Your task to perform on an android device: Set the phone to "Do not disturb". Image 0: 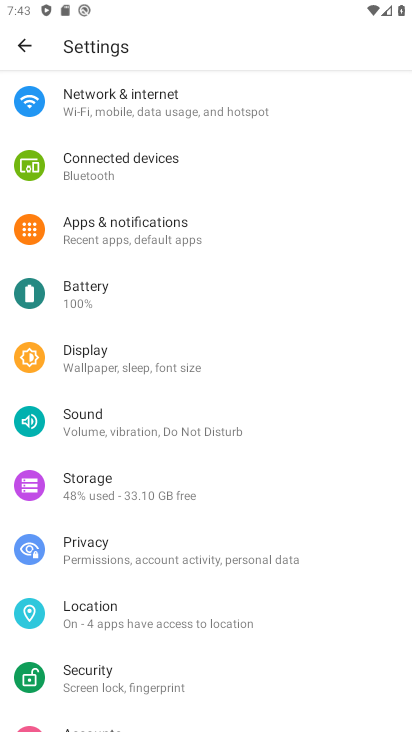
Step 0: click (78, 423)
Your task to perform on an android device: Set the phone to "Do not disturb". Image 1: 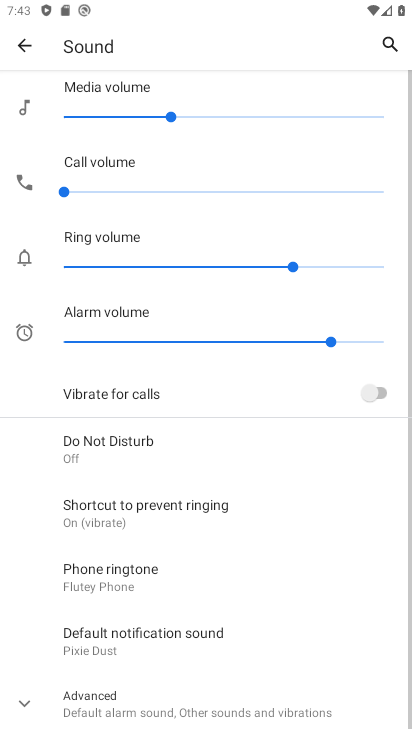
Step 1: drag from (296, 640) to (262, 428)
Your task to perform on an android device: Set the phone to "Do not disturb". Image 2: 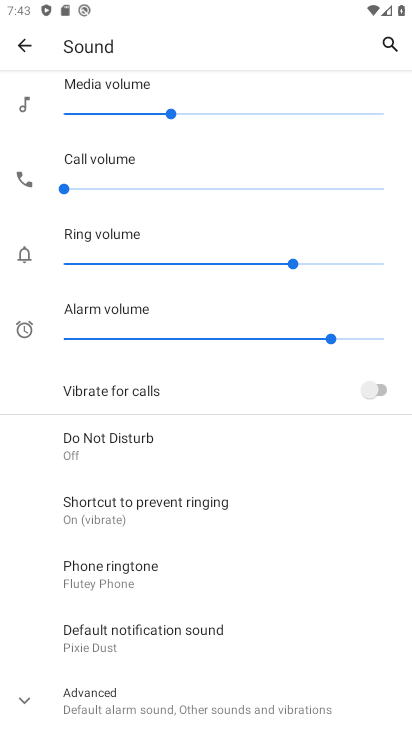
Step 2: click (81, 448)
Your task to perform on an android device: Set the phone to "Do not disturb". Image 3: 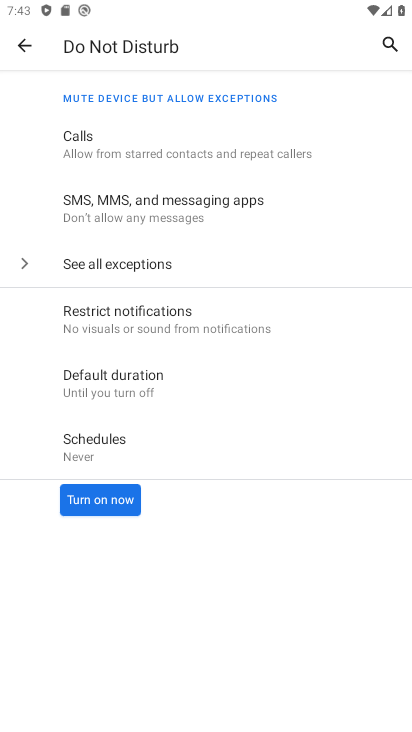
Step 3: click (106, 507)
Your task to perform on an android device: Set the phone to "Do not disturb". Image 4: 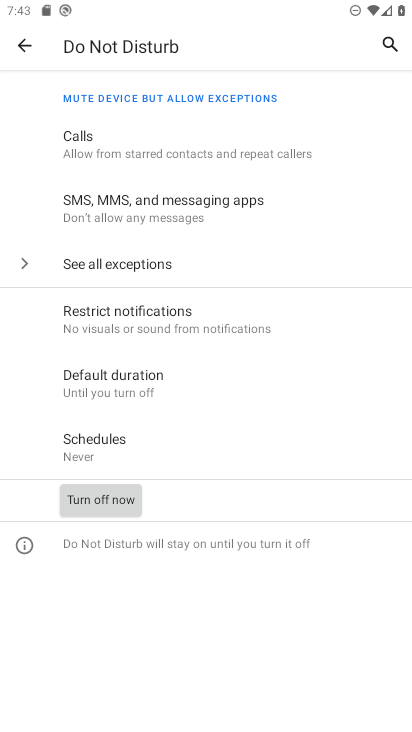
Step 4: task complete